Your task to perform on an android device: open chrome and create a bookmark for the current page Image 0: 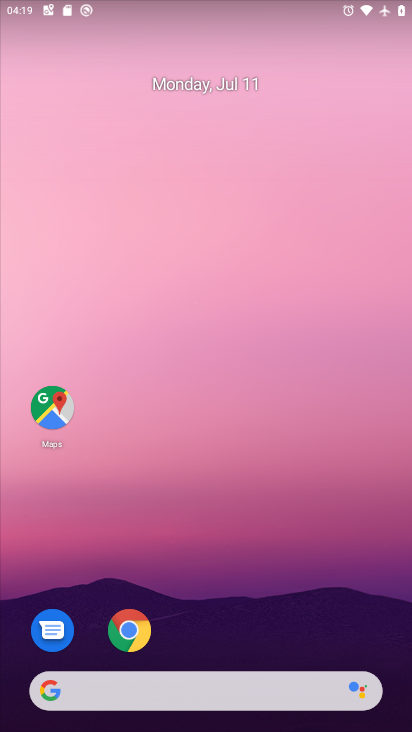
Step 0: click (126, 634)
Your task to perform on an android device: open chrome and create a bookmark for the current page Image 1: 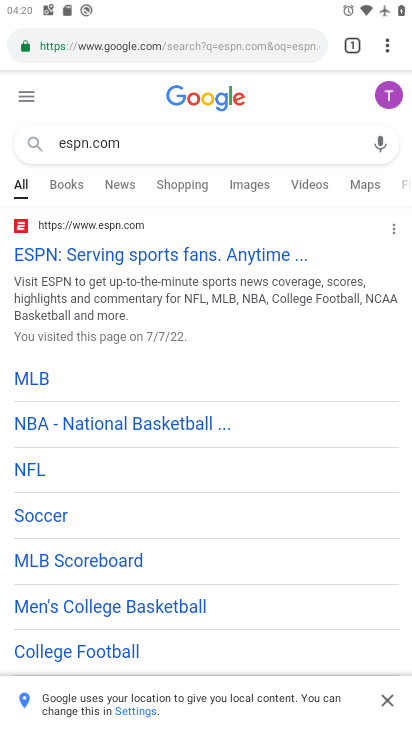
Step 1: click (376, 48)
Your task to perform on an android device: open chrome and create a bookmark for the current page Image 2: 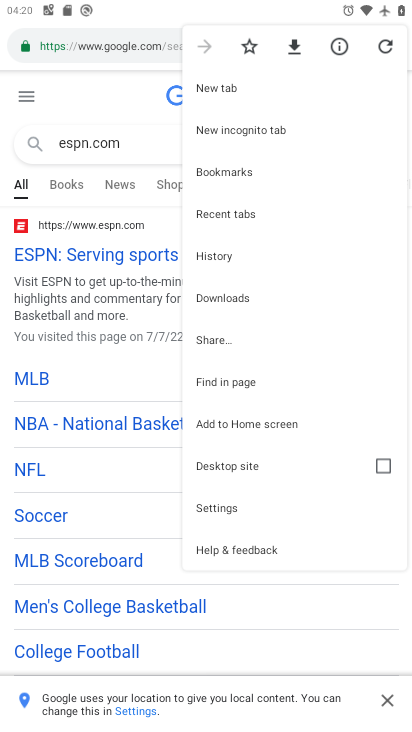
Step 2: click (243, 50)
Your task to perform on an android device: open chrome and create a bookmark for the current page Image 3: 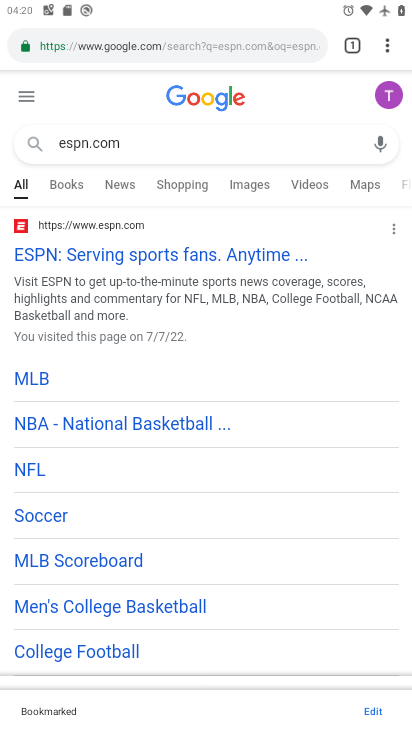
Step 3: task complete